Your task to perform on an android device: turn on wifi Image 0: 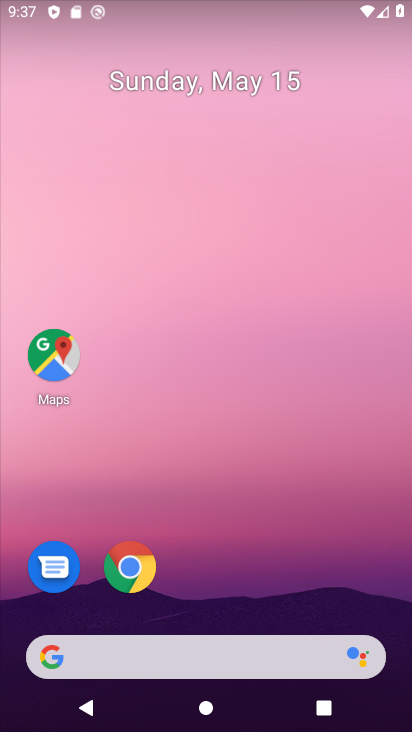
Step 0: drag from (264, 565) to (245, 87)
Your task to perform on an android device: turn on wifi Image 1: 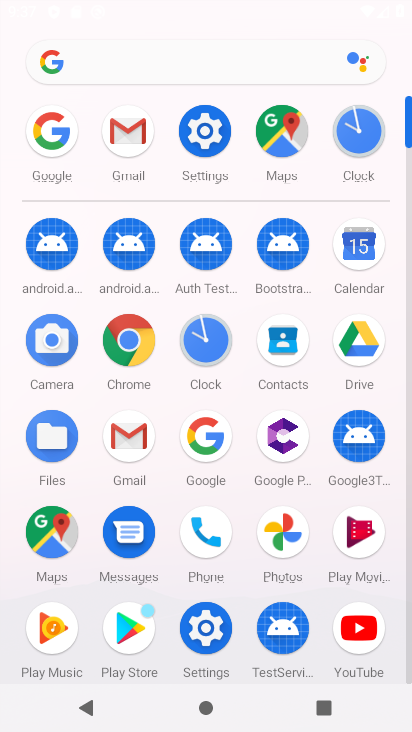
Step 1: click (205, 133)
Your task to perform on an android device: turn on wifi Image 2: 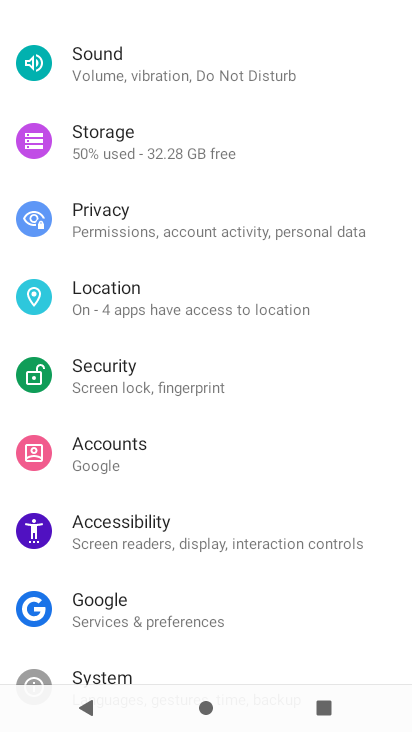
Step 2: drag from (189, 119) to (270, 658)
Your task to perform on an android device: turn on wifi Image 3: 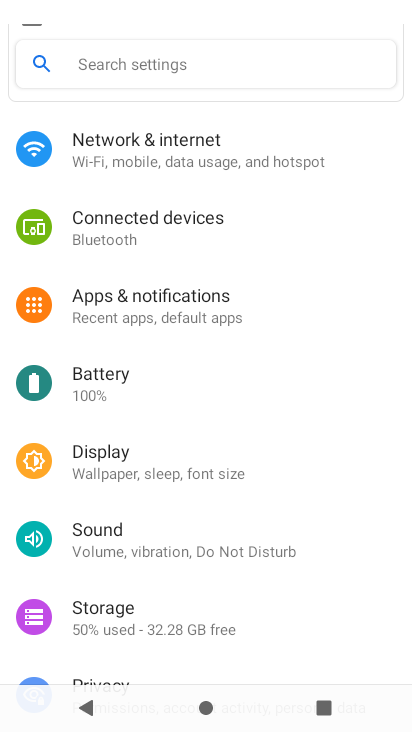
Step 3: click (180, 150)
Your task to perform on an android device: turn on wifi Image 4: 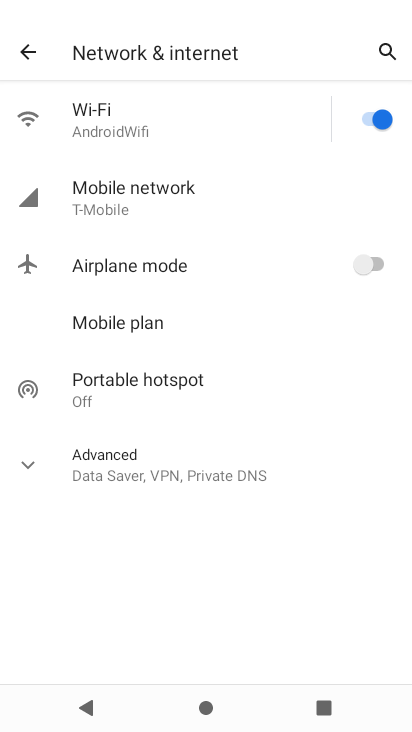
Step 4: task complete